Your task to perform on an android device: toggle javascript in the chrome app Image 0: 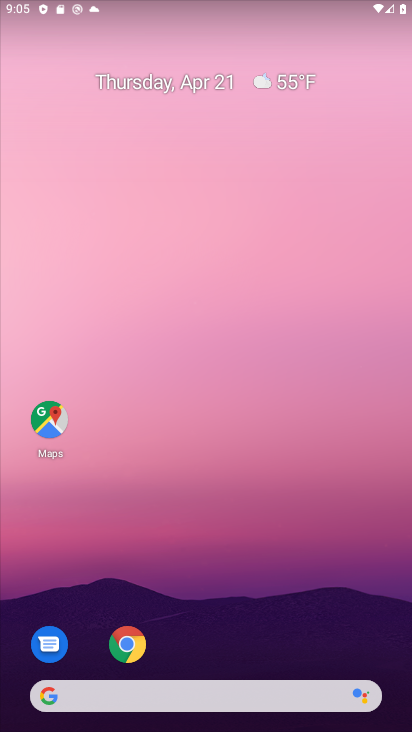
Step 0: click (129, 647)
Your task to perform on an android device: toggle javascript in the chrome app Image 1: 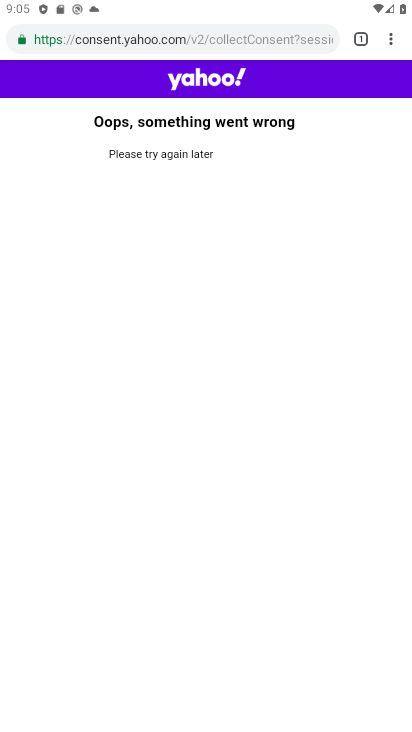
Step 1: drag from (389, 35) to (259, 473)
Your task to perform on an android device: toggle javascript in the chrome app Image 2: 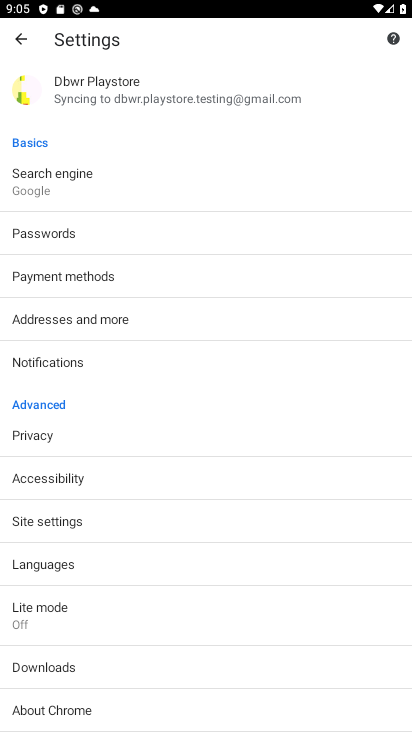
Step 2: click (81, 515)
Your task to perform on an android device: toggle javascript in the chrome app Image 3: 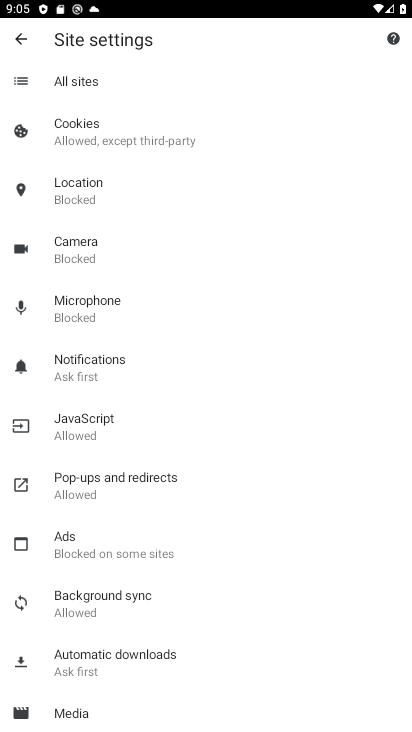
Step 3: click (95, 420)
Your task to perform on an android device: toggle javascript in the chrome app Image 4: 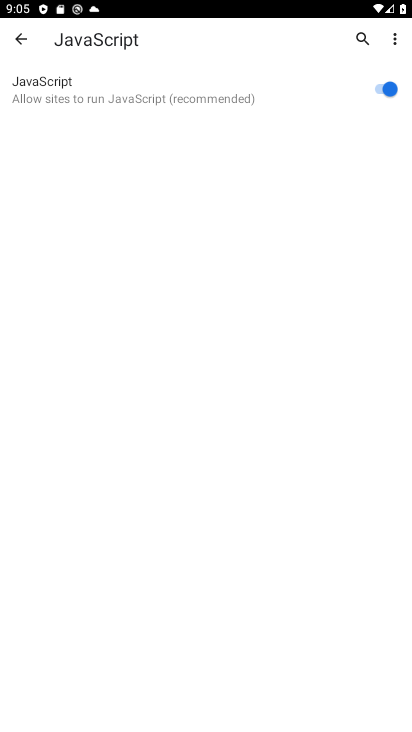
Step 4: click (226, 99)
Your task to perform on an android device: toggle javascript in the chrome app Image 5: 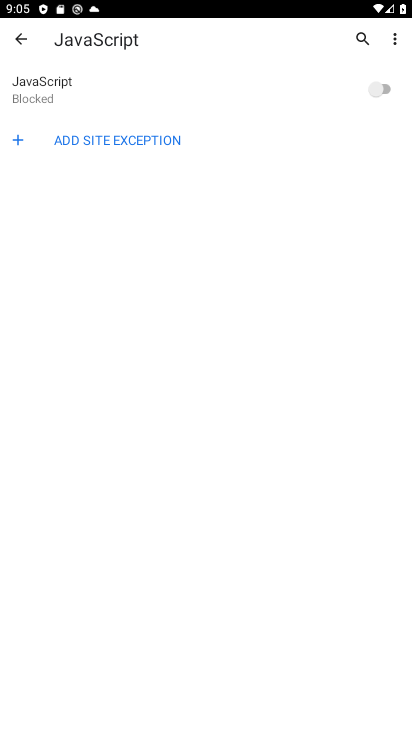
Step 5: task complete